Your task to perform on an android device: Clear all items from cart on walmart.com. Add "bose soundlink" to the cart on walmart.com Image 0: 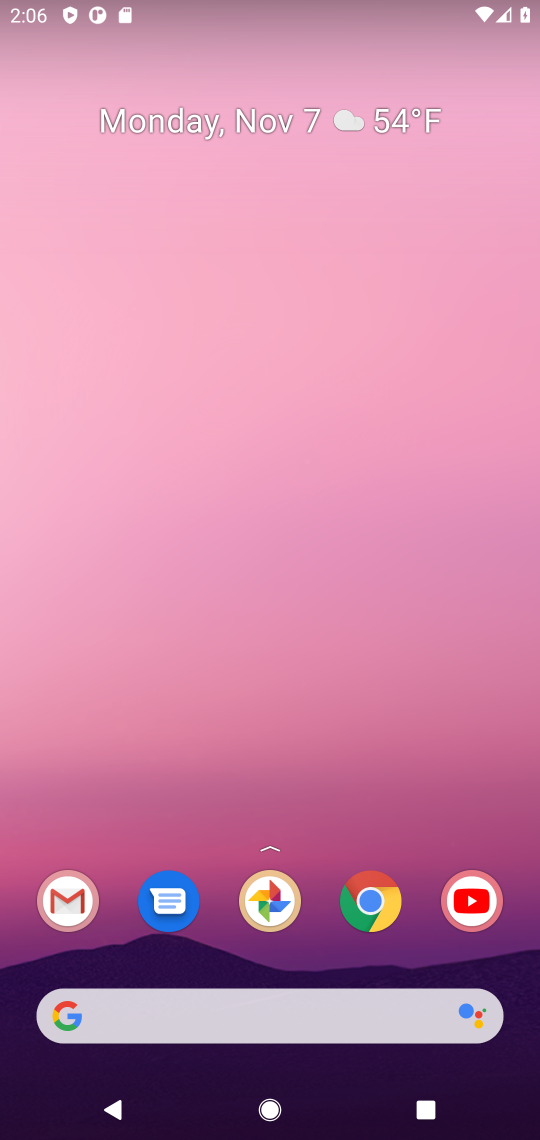
Step 0: click (370, 902)
Your task to perform on an android device: Clear all items from cart on walmart.com. Add "bose soundlink" to the cart on walmart.com Image 1: 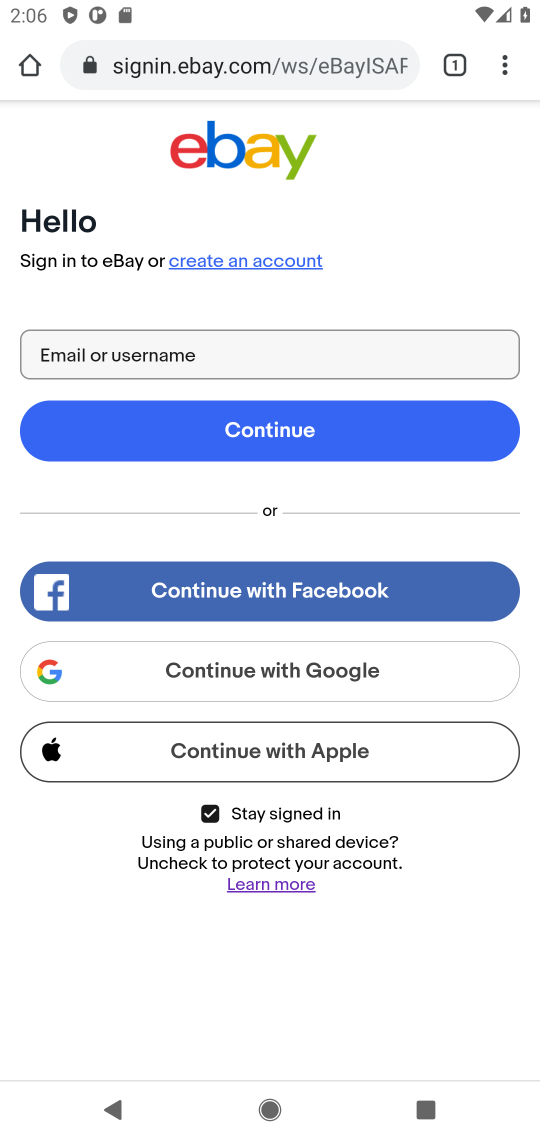
Step 1: click (241, 74)
Your task to perform on an android device: Clear all items from cart on walmart.com. Add "bose soundlink" to the cart on walmart.com Image 2: 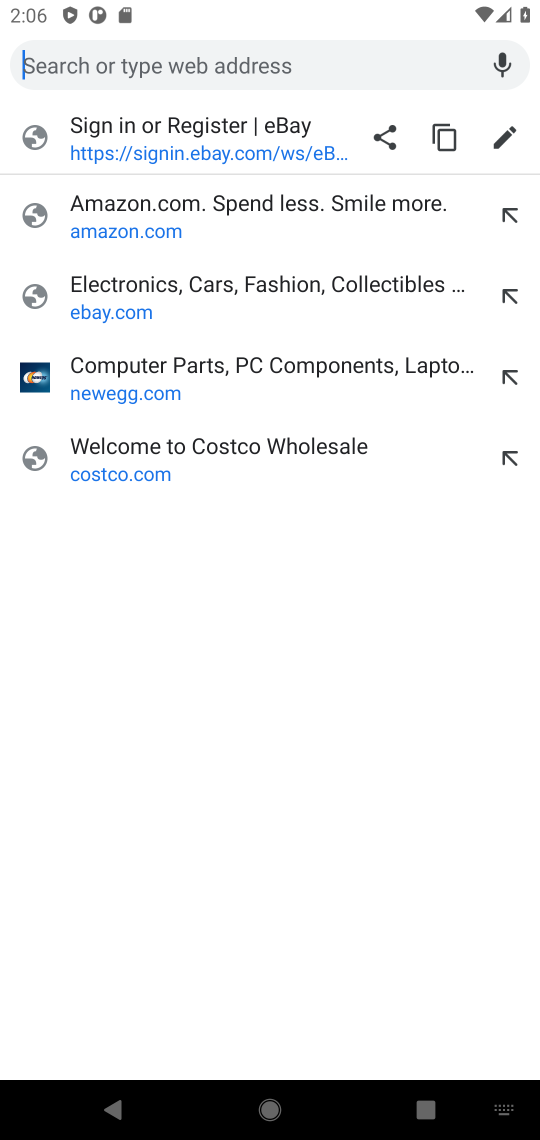
Step 2: type "walmart.com"
Your task to perform on an android device: Clear all items from cart on walmart.com. Add "bose soundlink" to the cart on walmart.com Image 3: 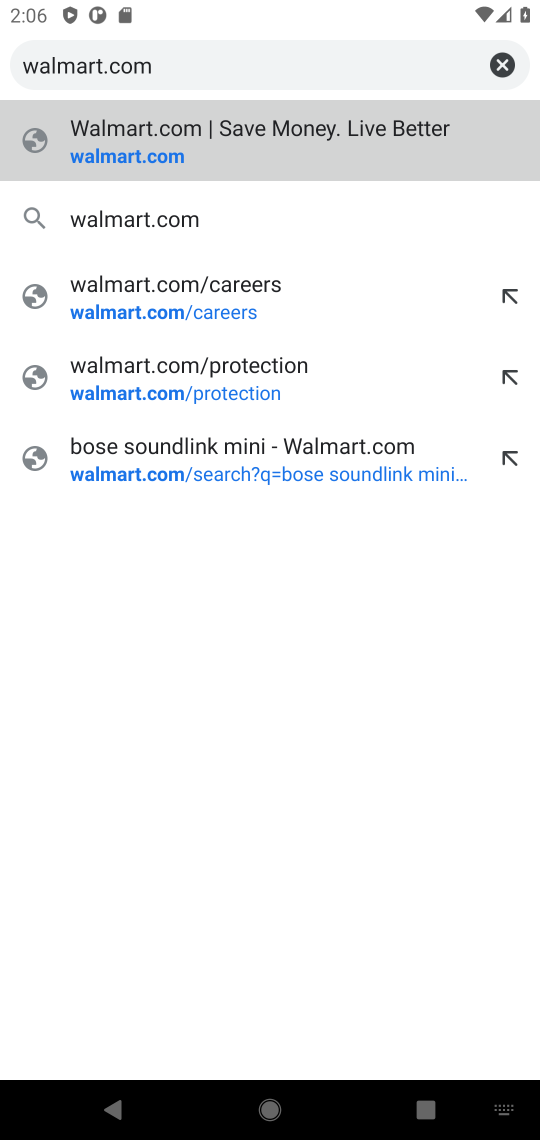
Step 3: click (151, 165)
Your task to perform on an android device: Clear all items from cart on walmart.com. Add "bose soundlink" to the cart on walmart.com Image 4: 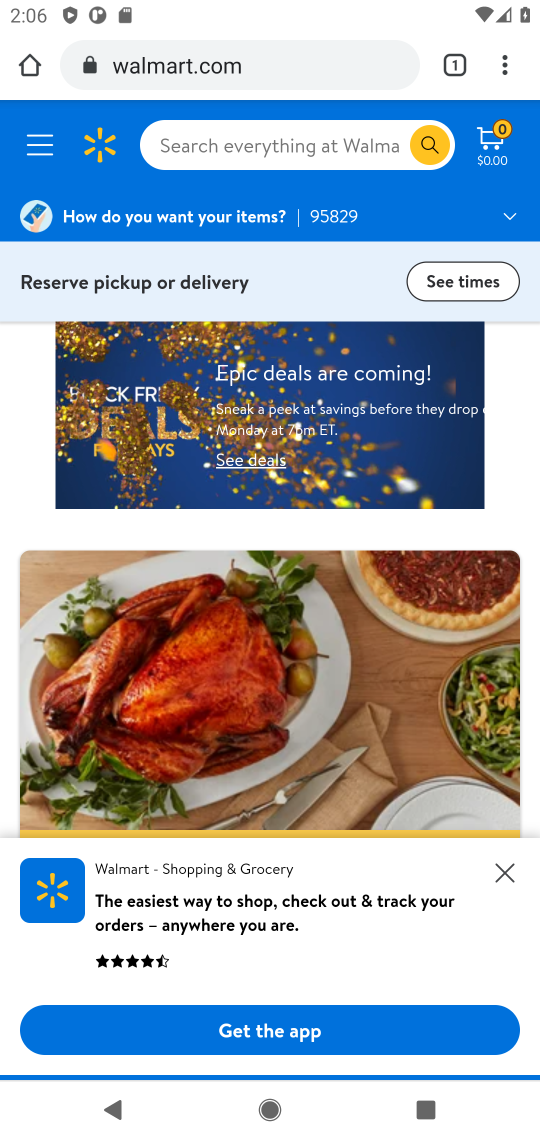
Step 4: click (498, 144)
Your task to perform on an android device: Clear all items from cart on walmart.com. Add "bose soundlink" to the cart on walmart.com Image 5: 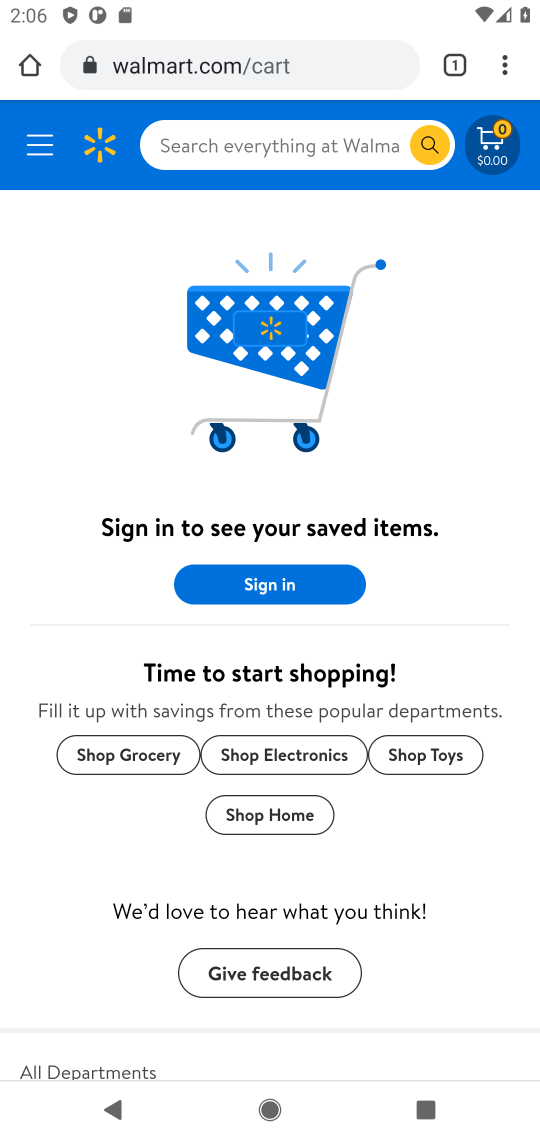
Step 5: click (274, 157)
Your task to perform on an android device: Clear all items from cart on walmart.com. Add "bose soundlink" to the cart on walmart.com Image 6: 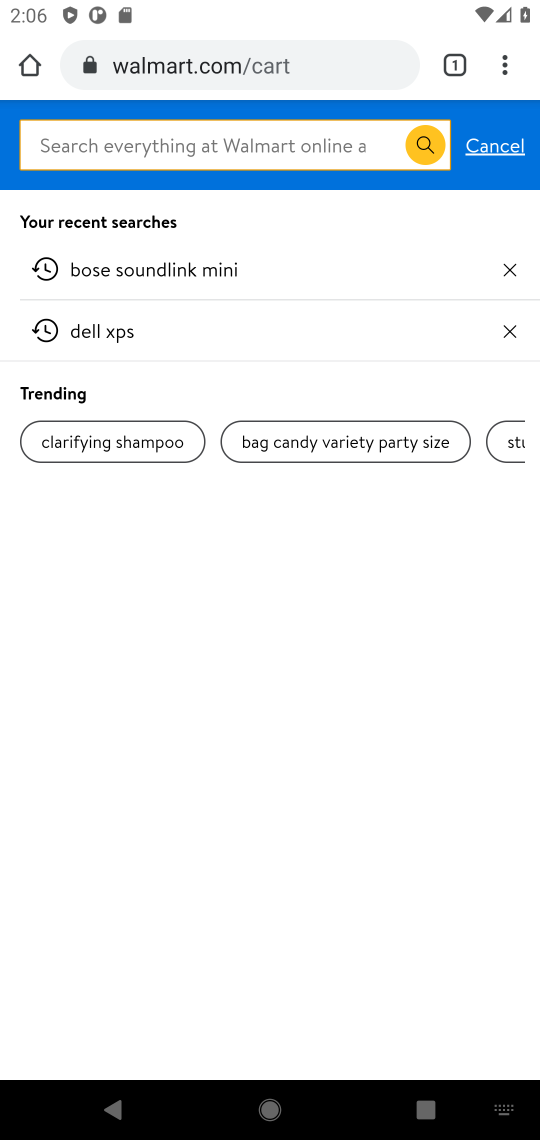
Step 6: type "bose soundlink"
Your task to perform on an android device: Clear all items from cart on walmart.com. Add "bose soundlink" to the cart on walmart.com Image 7: 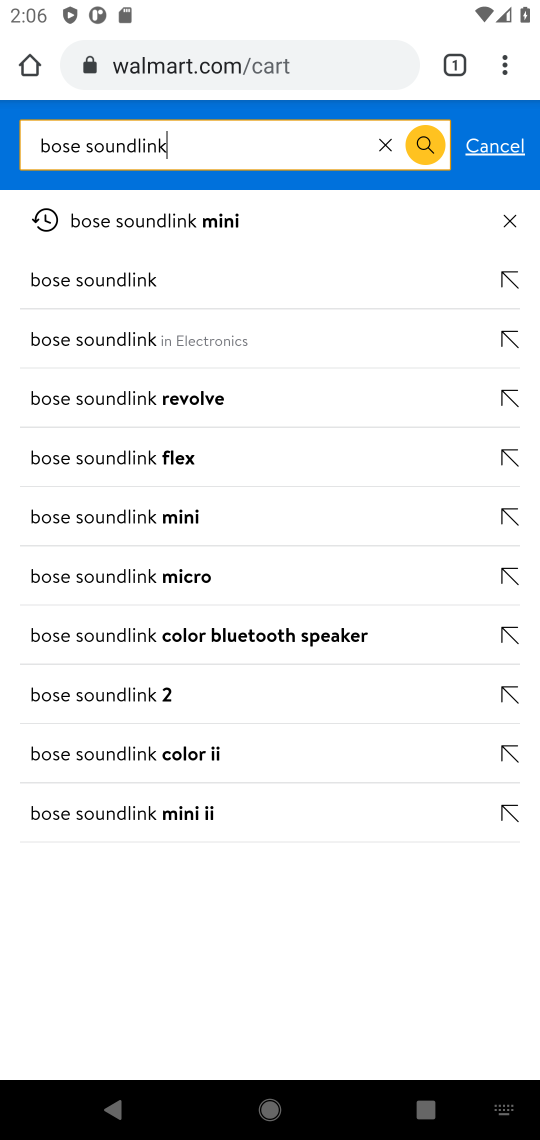
Step 7: click (65, 284)
Your task to perform on an android device: Clear all items from cart on walmart.com. Add "bose soundlink" to the cart on walmart.com Image 8: 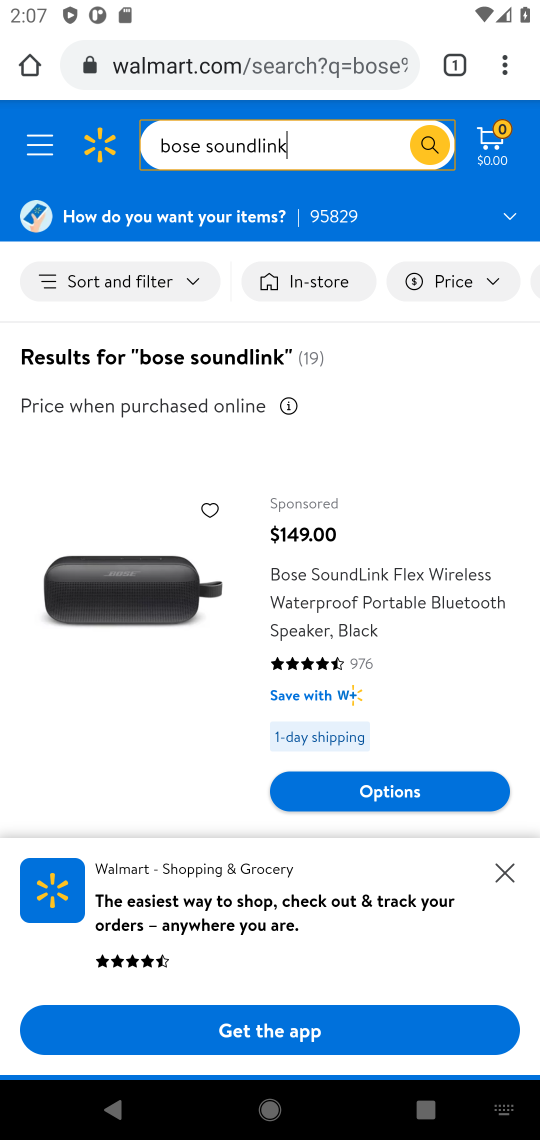
Step 8: click (175, 612)
Your task to perform on an android device: Clear all items from cart on walmart.com. Add "bose soundlink" to the cart on walmart.com Image 9: 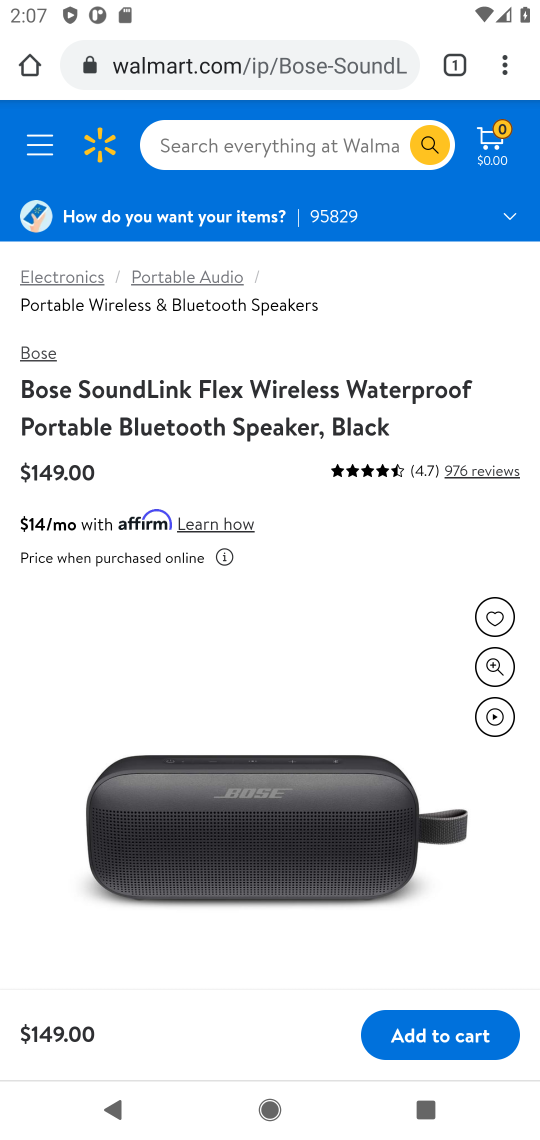
Step 9: click (419, 1028)
Your task to perform on an android device: Clear all items from cart on walmart.com. Add "bose soundlink" to the cart on walmart.com Image 10: 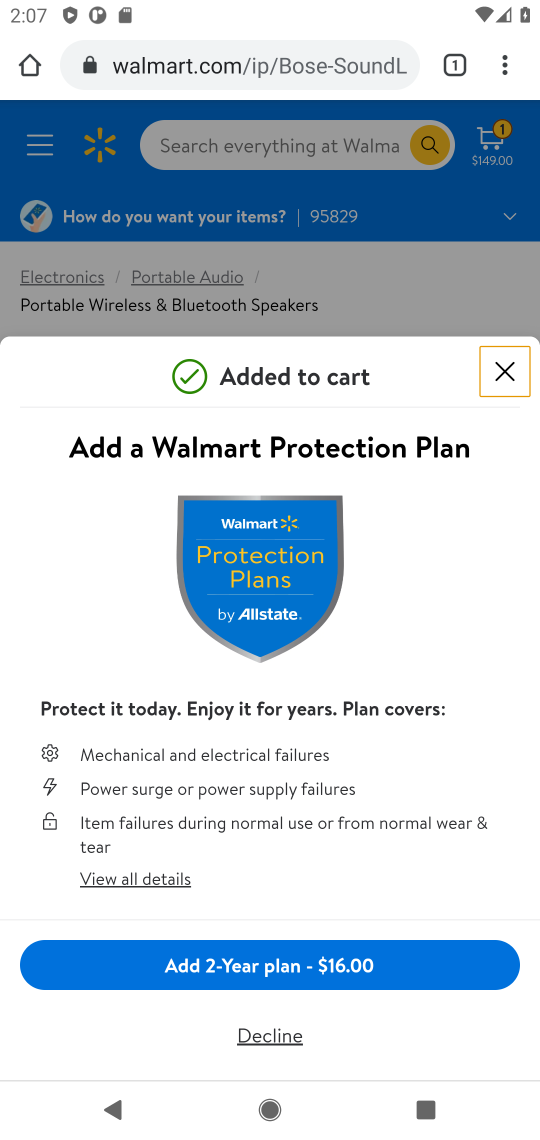
Step 10: task complete